Your task to perform on an android device: Go to network settings Image 0: 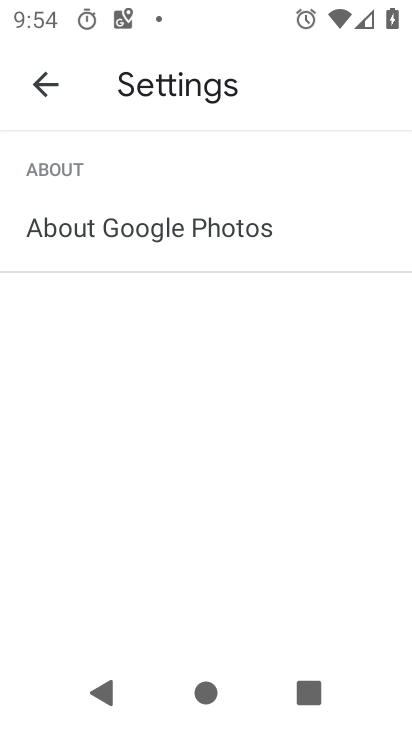
Step 0: press home button
Your task to perform on an android device: Go to network settings Image 1: 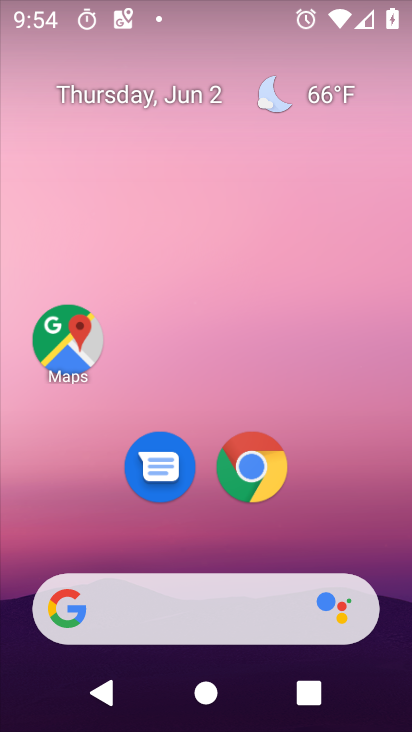
Step 1: drag from (39, 617) to (321, 247)
Your task to perform on an android device: Go to network settings Image 2: 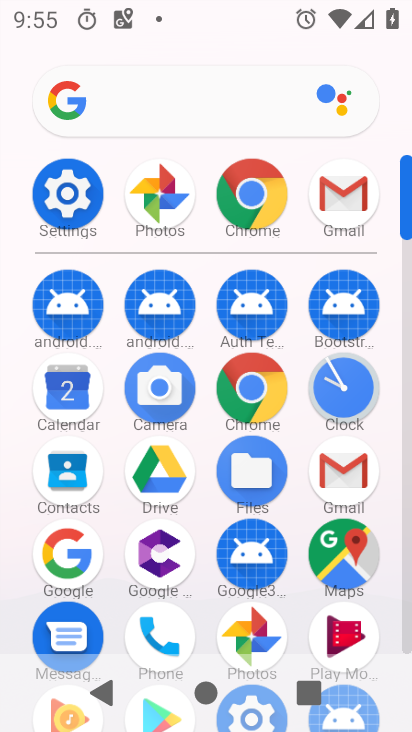
Step 2: click (55, 194)
Your task to perform on an android device: Go to network settings Image 3: 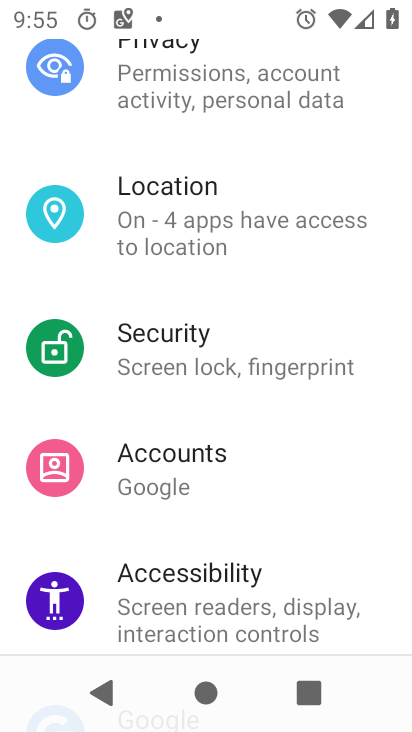
Step 3: drag from (164, 118) to (176, 604)
Your task to perform on an android device: Go to network settings Image 4: 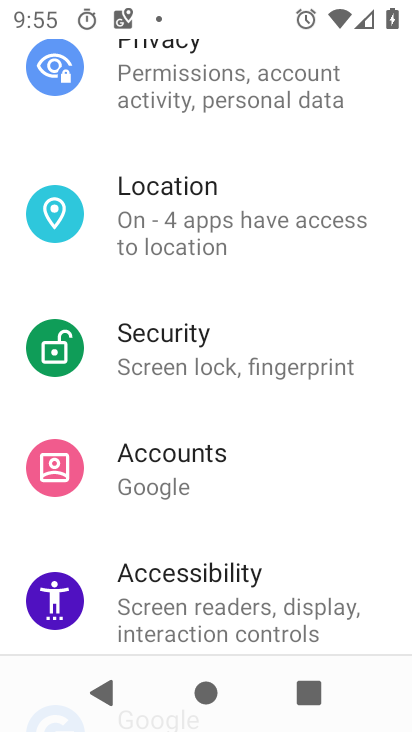
Step 4: drag from (382, 153) to (339, 508)
Your task to perform on an android device: Go to network settings Image 5: 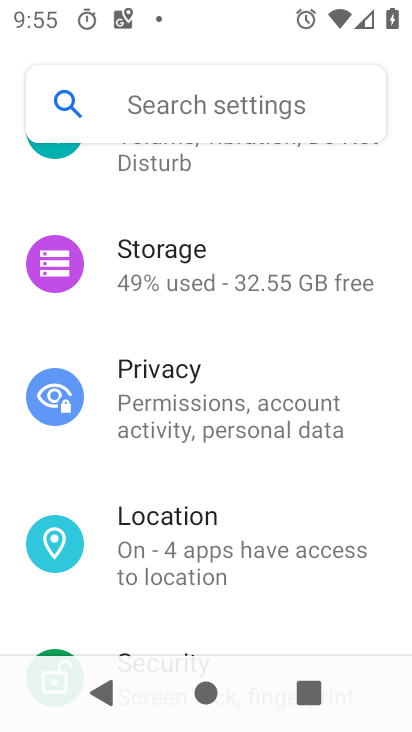
Step 5: drag from (275, 290) to (261, 532)
Your task to perform on an android device: Go to network settings Image 6: 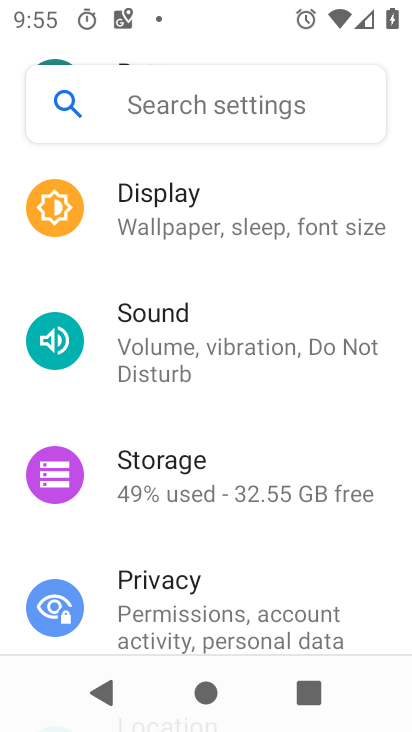
Step 6: drag from (245, 219) to (271, 534)
Your task to perform on an android device: Go to network settings Image 7: 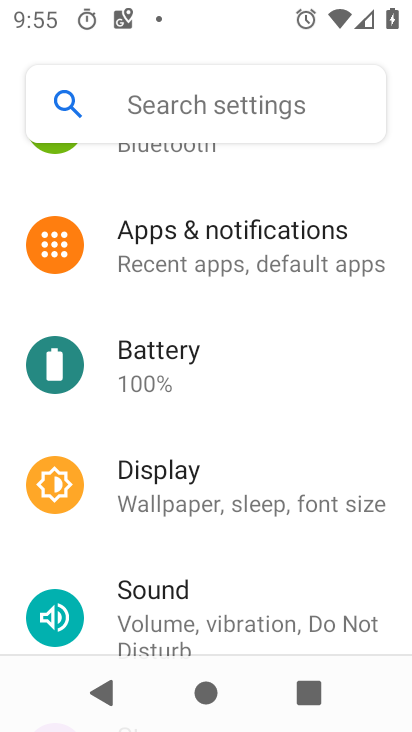
Step 7: drag from (266, 278) to (304, 571)
Your task to perform on an android device: Go to network settings Image 8: 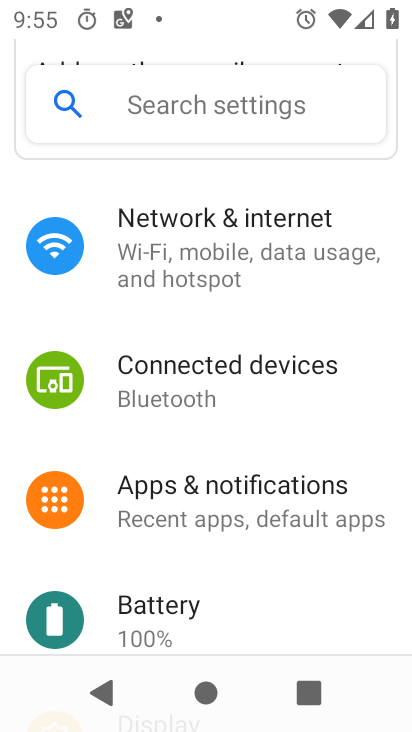
Step 8: click (294, 260)
Your task to perform on an android device: Go to network settings Image 9: 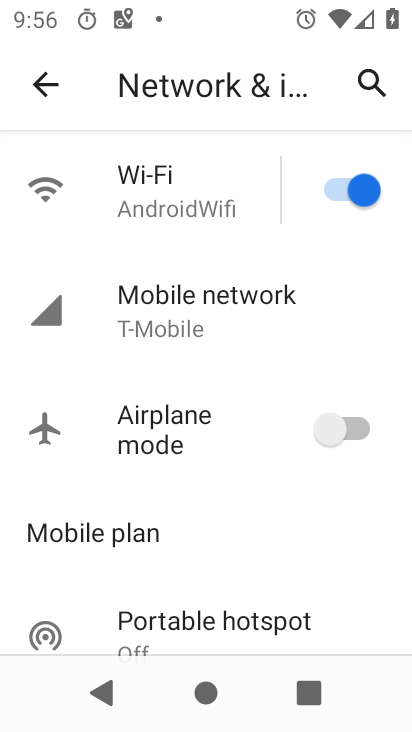
Step 9: click (302, 289)
Your task to perform on an android device: Go to network settings Image 10: 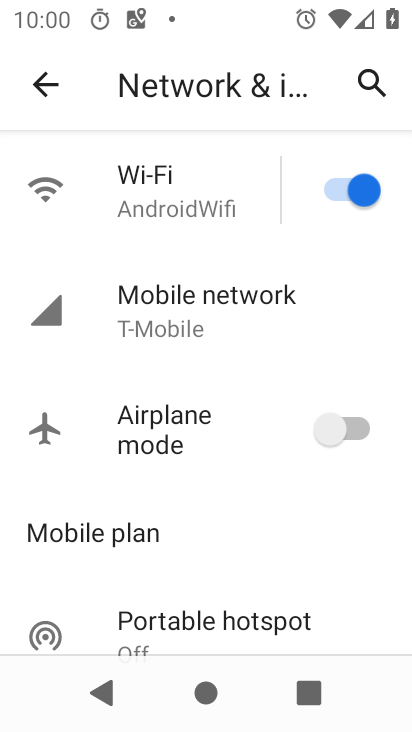
Step 10: task complete